Your task to perform on an android device: Open privacy settings Image 0: 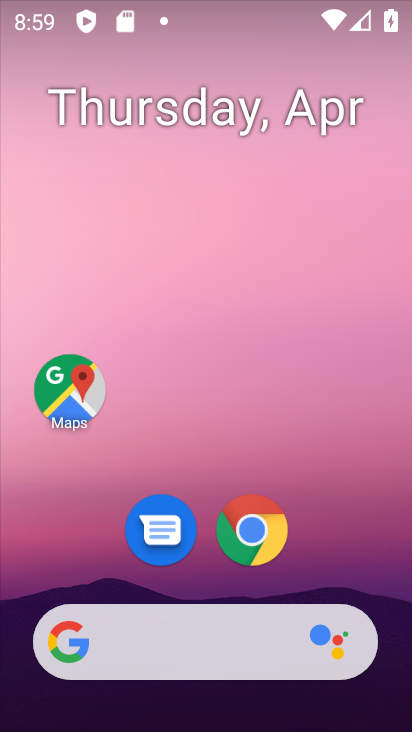
Step 0: drag from (340, 588) to (182, 45)
Your task to perform on an android device: Open privacy settings Image 1: 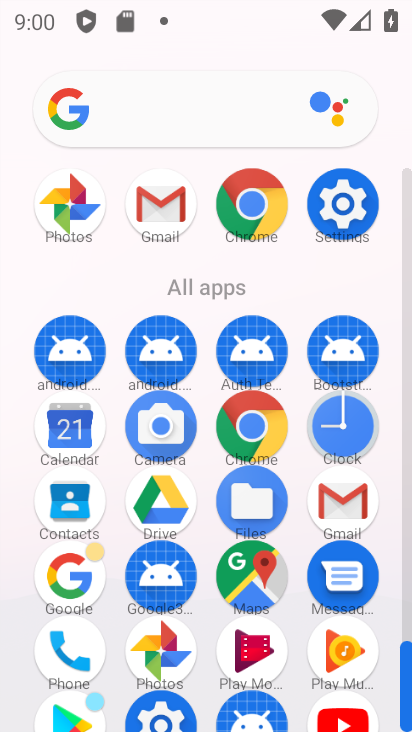
Step 1: click (344, 199)
Your task to perform on an android device: Open privacy settings Image 2: 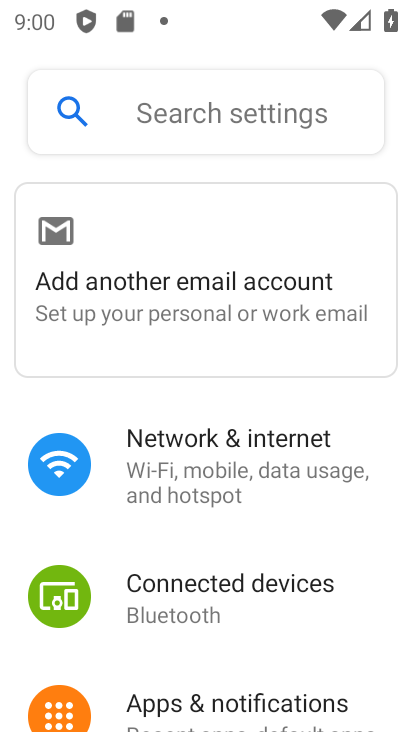
Step 2: drag from (207, 661) to (224, 147)
Your task to perform on an android device: Open privacy settings Image 3: 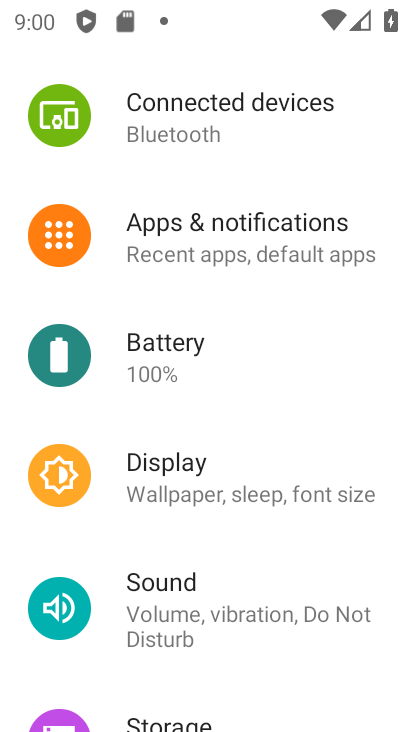
Step 3: drag from (152, 605) to (242, 151)
Your task to perform on an android device: Open privacy settings Image 4: 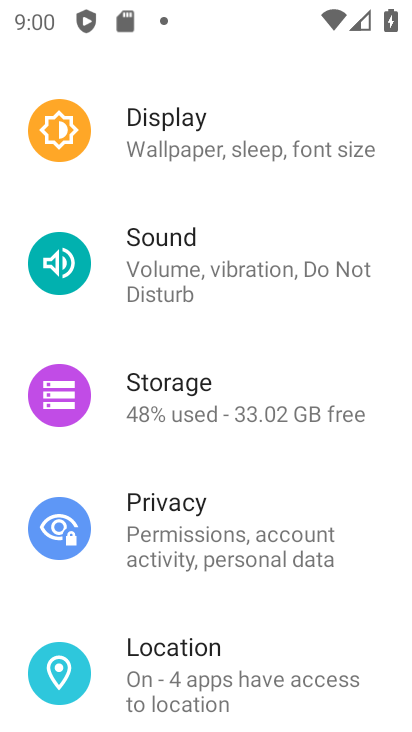
Step 4: click (209, 527)
Your task to perform on an android device: Open privacy settings Image 5: 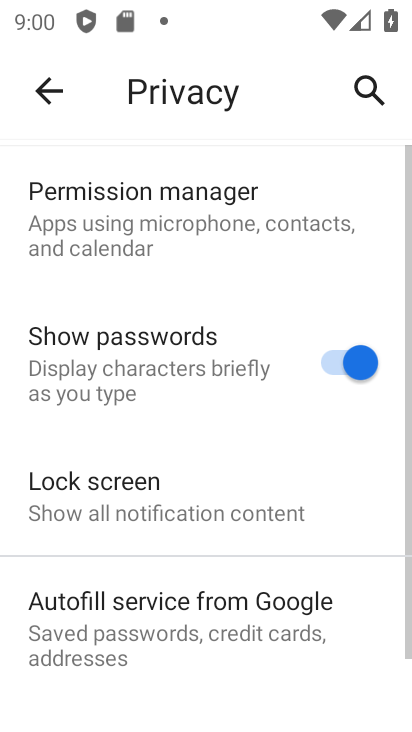
Step 5: task complete